Your task to perform on an android device: Open Maps and search for coffee Image 0: 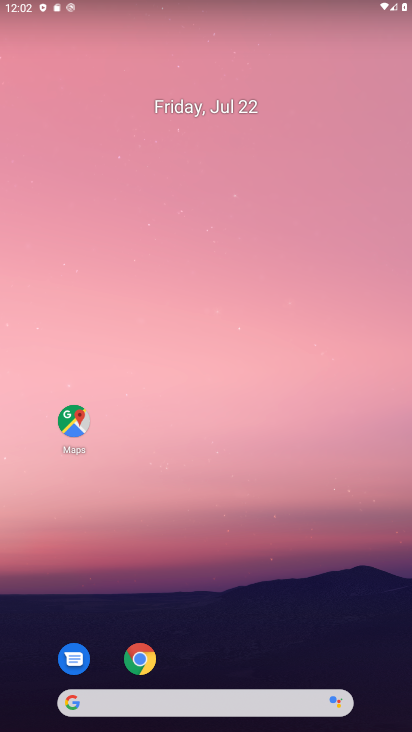
Step 0: click (77, 418)
Your task to perform on an android device: Open Maps and search for coffee Image 1: 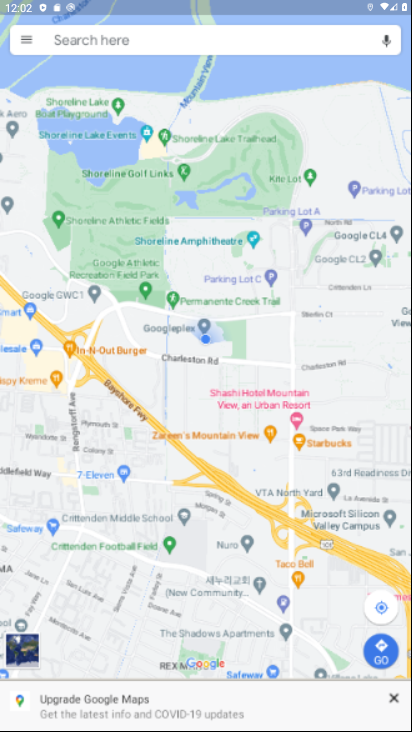
Step 1: task complete